Your task to perform on an android device: When is my next appointment? Image 0: 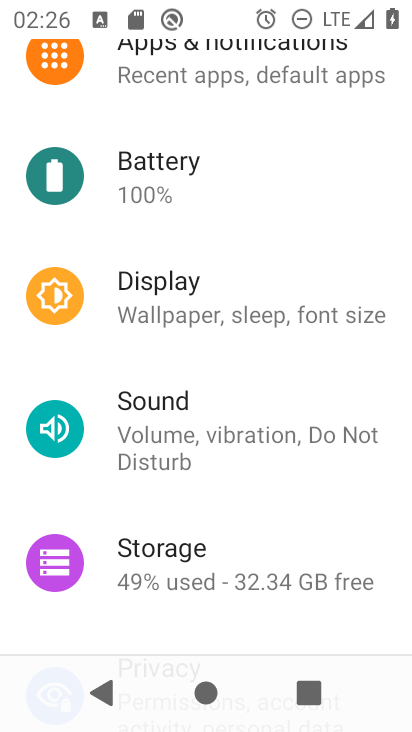
Step 0: press home button
Your task to perform on an android device: When is my next appointment? Image 1: 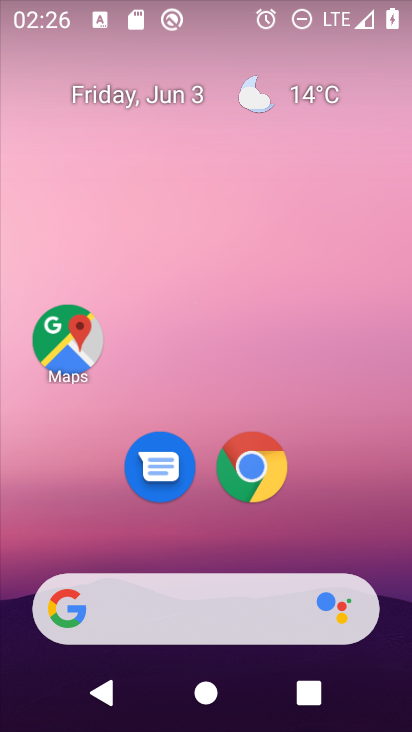
Step 1: drag from (389, 611) to (329, 143)
Your task to perform on an android device: When is my next appointment? Image 2: 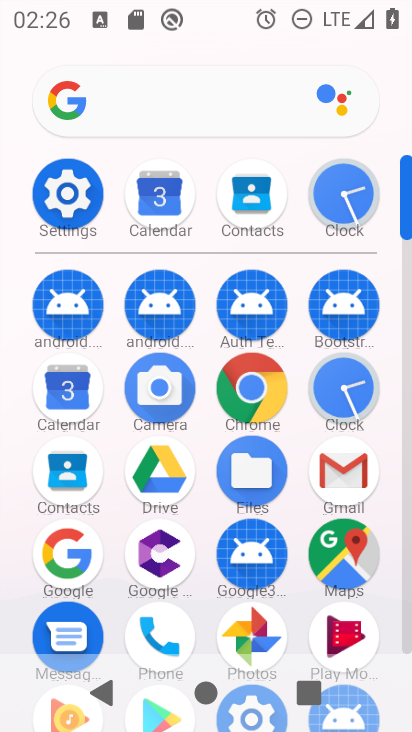
Step 2: click (406, 614)
Your task to perform on an android device: When is my next appointment? Image 3: 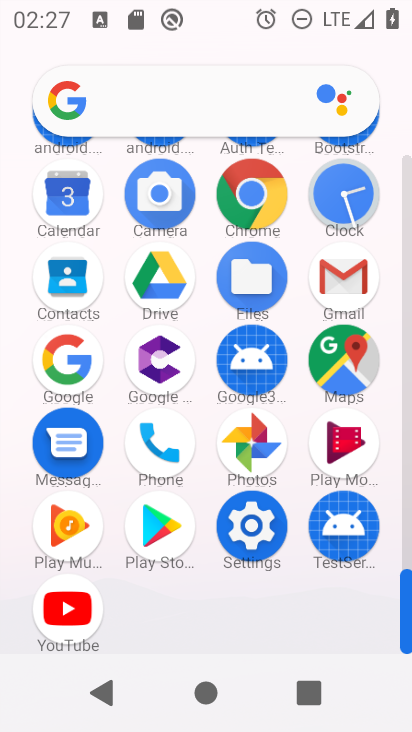
Step 3: click (63, 195)
Your task to perform on an android device: When is my next appointment? Image 4: 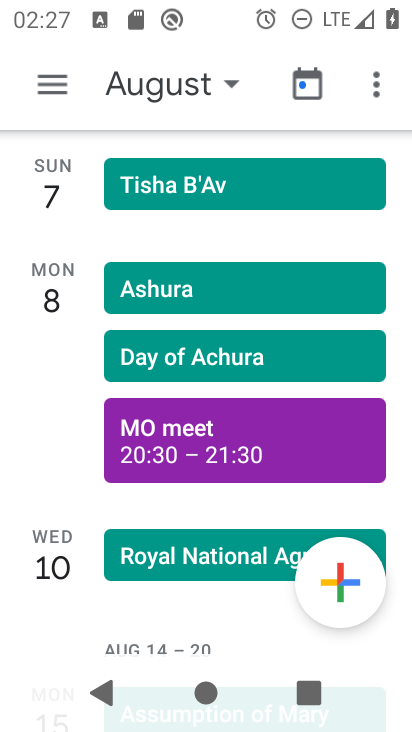
Step 4: click (51, 76)
Your task to perform on an android device: When is my next appointment? Image 5: 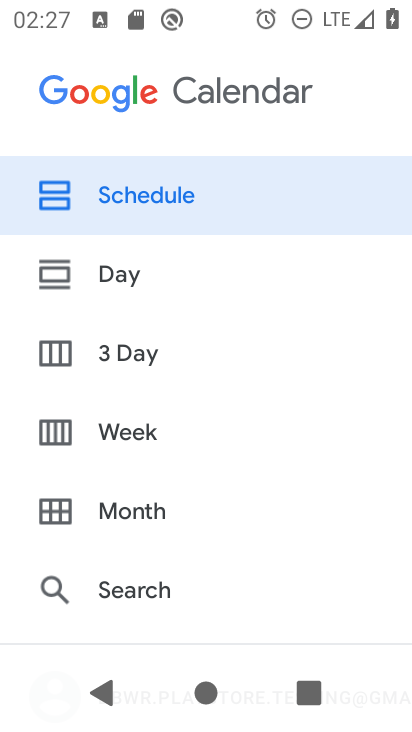
Step 5: click (159, 199)
Your task to perform on an android device: When is my next appointment? Image 6: 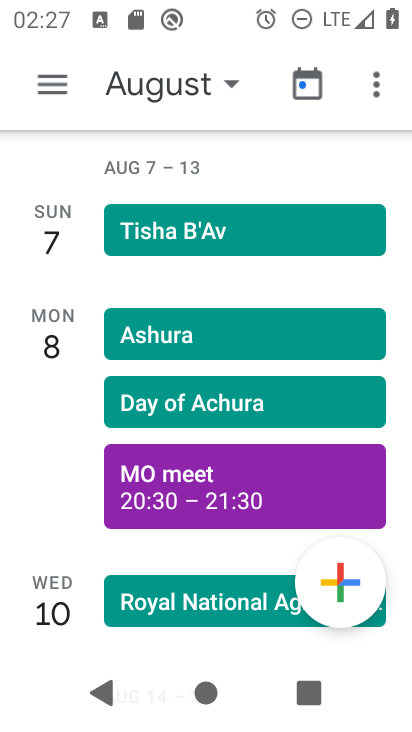
Step 6: click (229, 82)
Your task to perform on an android device: When is my next appointment? Image 7: 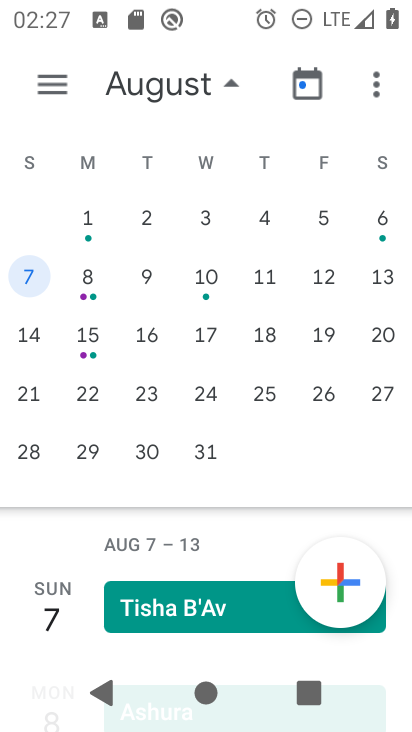
Step 7: drag from (32, 339) to (369, 298)
Your task to perform on an android device: When is my next appointment? Image 8: 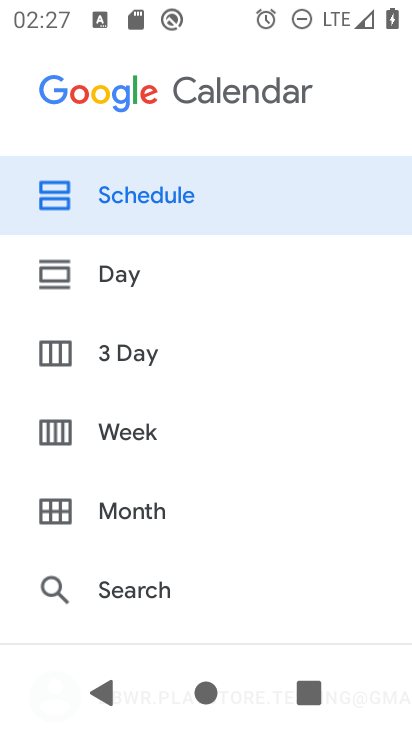
Step 8: click (145, 186)
Your task to perform on an android device: When is my next appointment? Image 9: 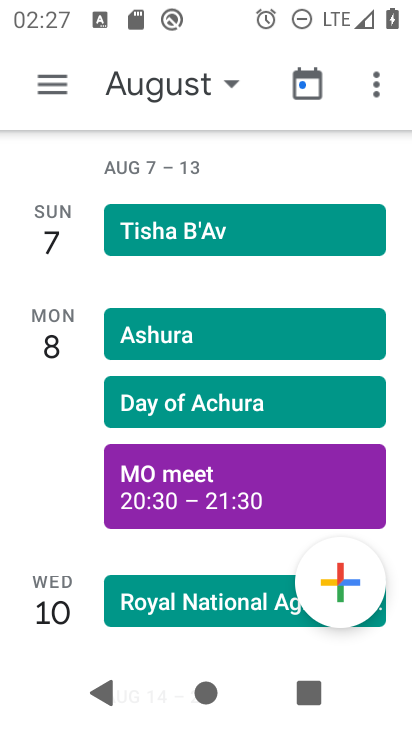
Step 9: click (233, 82)
Your task to perform on an android device: When is my next appointment? Image 10: 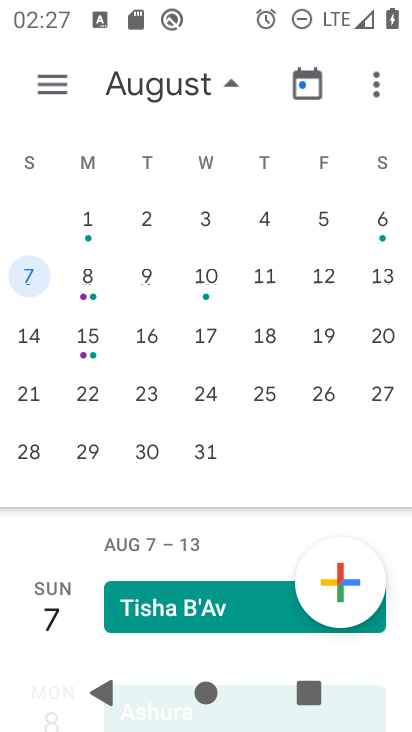
Step 10: drag from (105, 331) to (338, 288)
Your task to perform on an android device: When is my next appointment? Image 11: 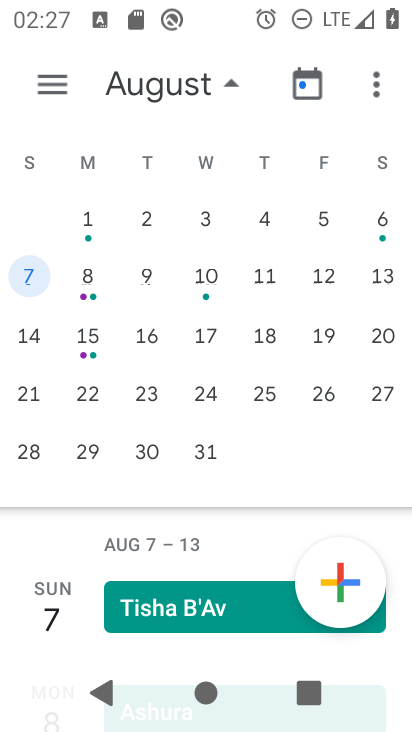
Step 11: drag from (88, 334) to (374, 288)
Your task to perform on an android device: When is my next appointment? Image 12: 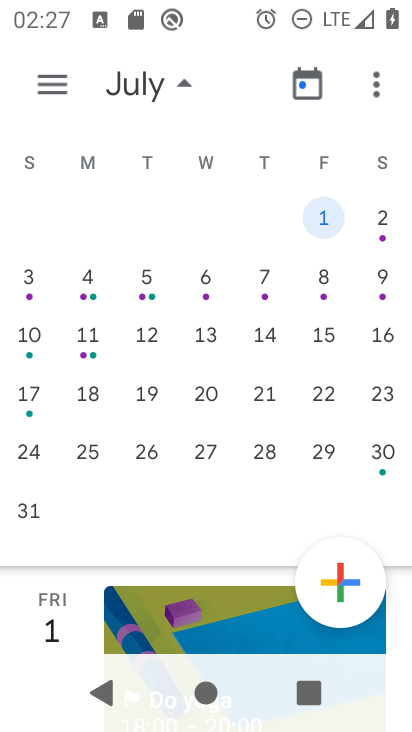
Step 12: drag from (81, 337) to (366, 299)
Your task to perform on an android device: When is my next appointment? Image 13: 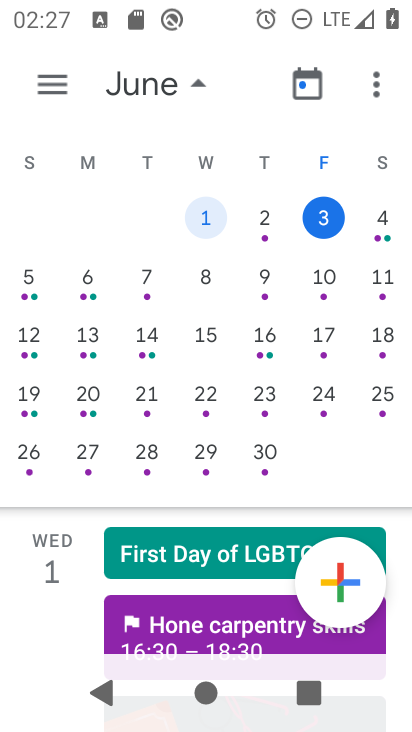
Step 13: click (328, 226)
Your task to perform on an android device: When is my next appointment? Image 14: 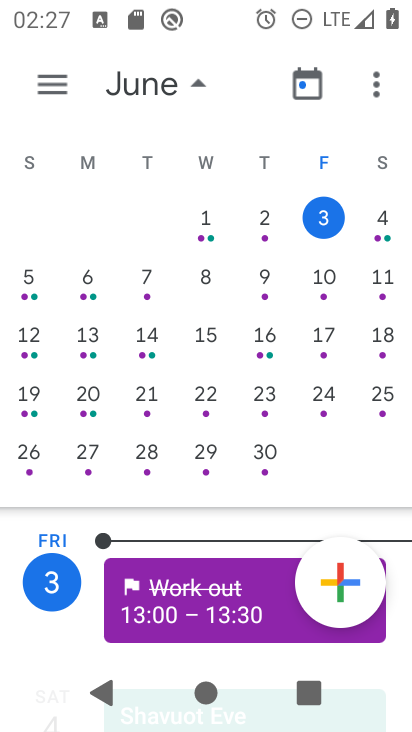
Step 14: click (60, 84)
Your task to perform on an android device: When is my next appointment? Image 15: 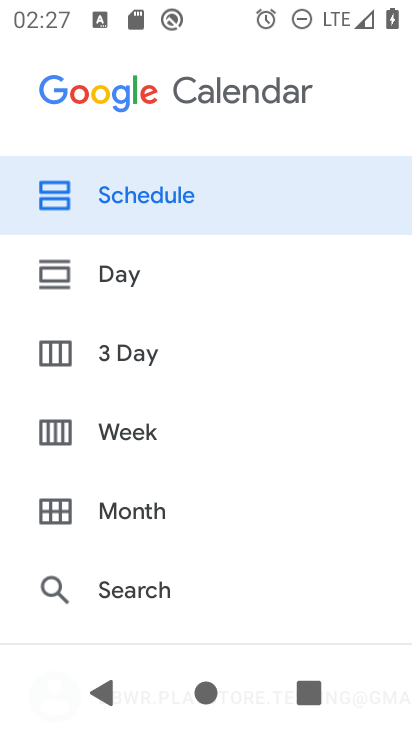
Step 15: click (144, 201)
Your task to perform on an android device: When is my next appointment? Image 16: 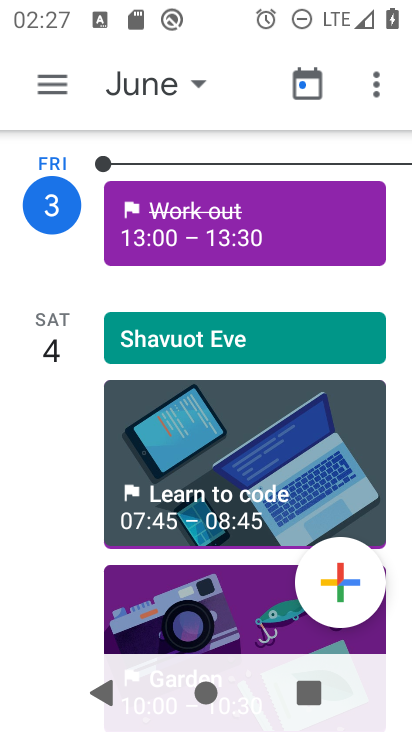
Step 16: task complete